Your task to perform on an android device: Look up the new steph curry shoes Image 0: 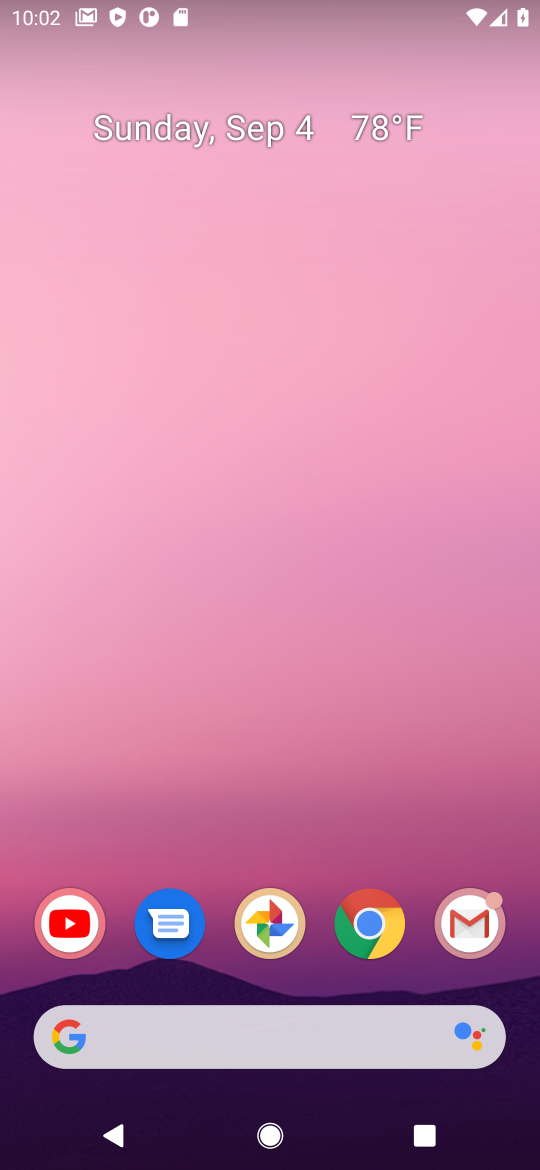
Step 0: click (243, 1036)
Your task to perform on an android device: Look up the new steph curry shoes Image 1: 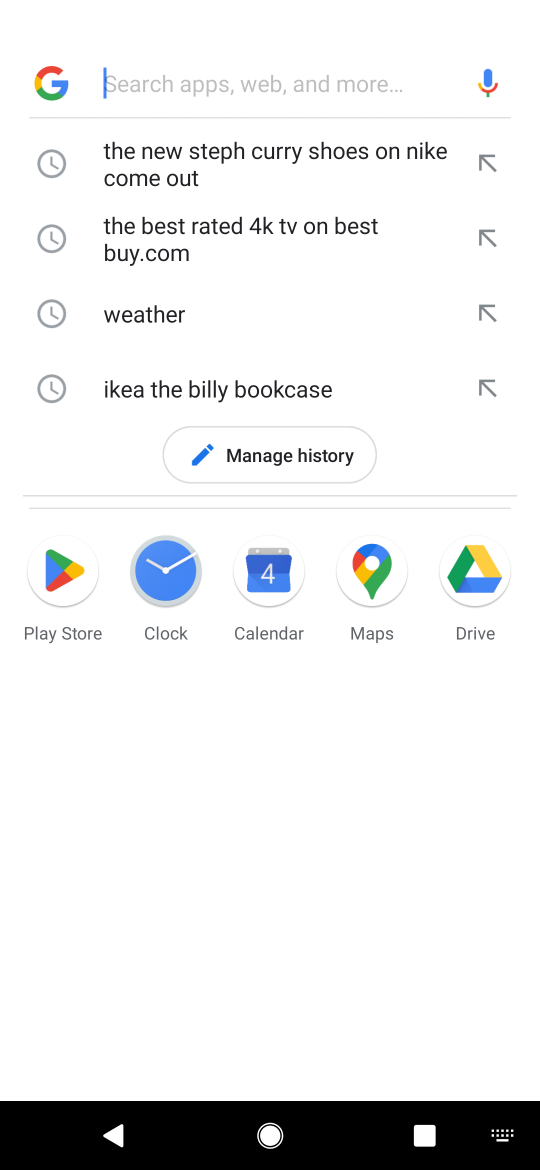
Step 1: type " the new steph curry shoes"
Your task to perform on an android device: Look up the new steph curry shoes Image 2: 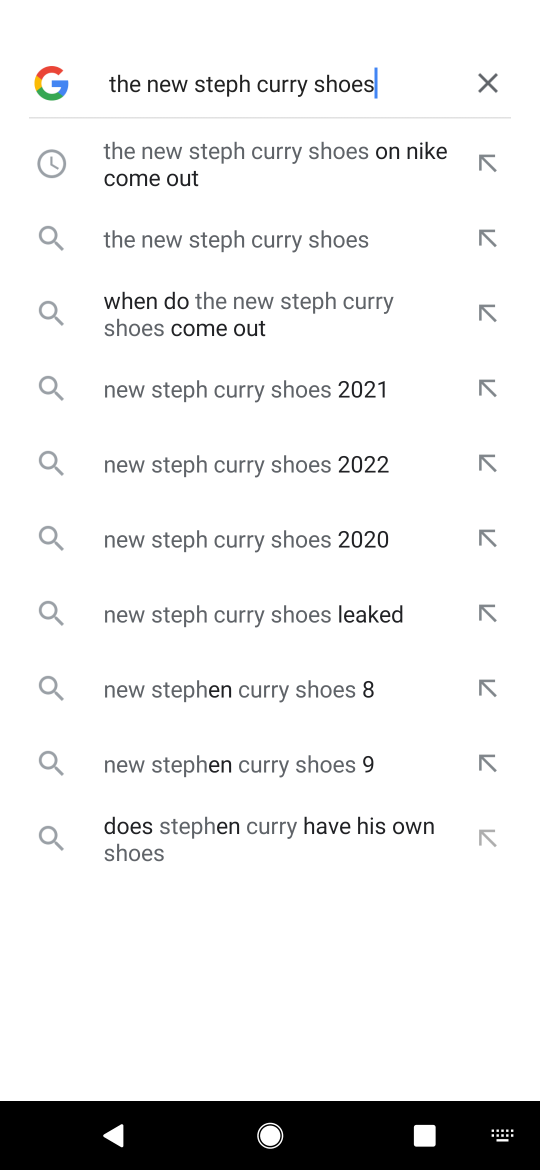
Step 2: type ""
Your task to perform on an android device: Look up the new steph curry shoes Image 3: 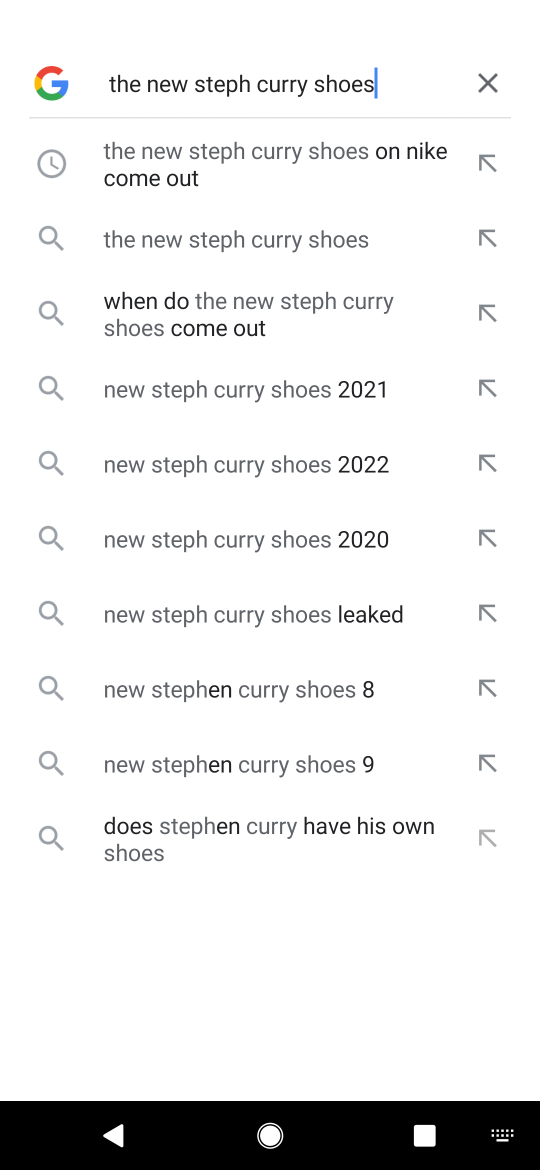
Step 3: task complete